Your task to perform on an android device: toggle sleep mode Image 0: 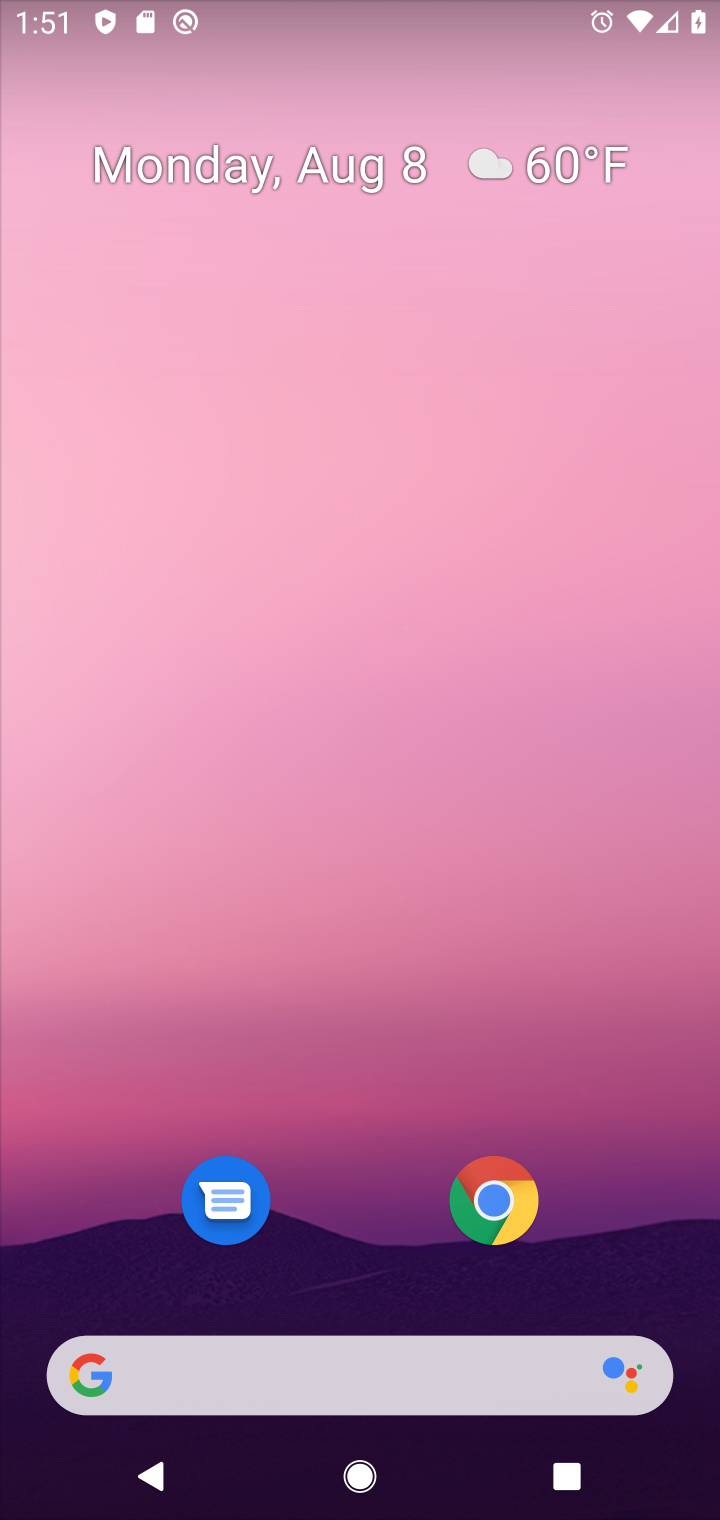
Step 0: press home button
Your task to perform on an android device: toggle sleep mode Image 1: 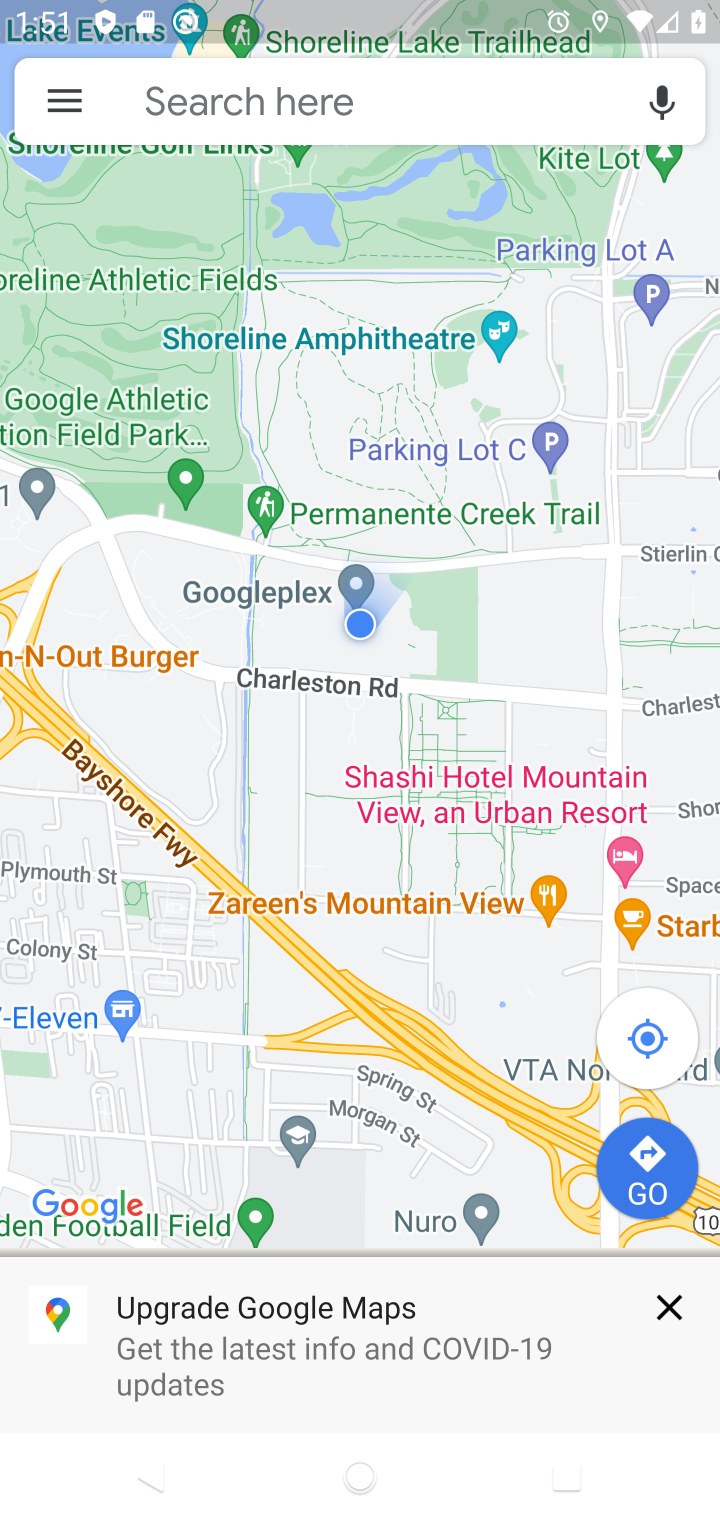
Step 1: click (399, 115)
Your task to perform on an android device: toggle sleep mode Image 2: 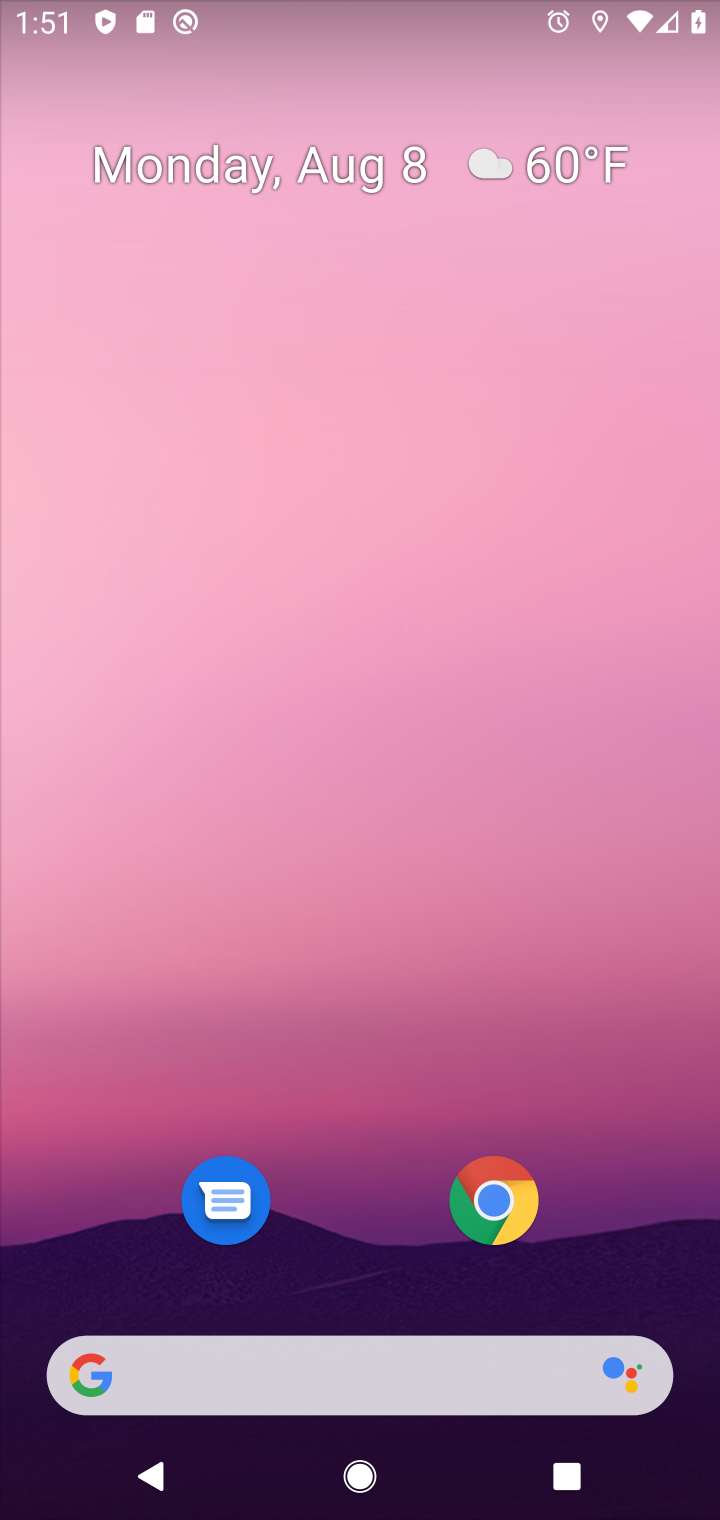
Step 2: drag from (372, 1302) to (388, 109)
Your task to perform on an android device: toggle sleep mode Image 3: 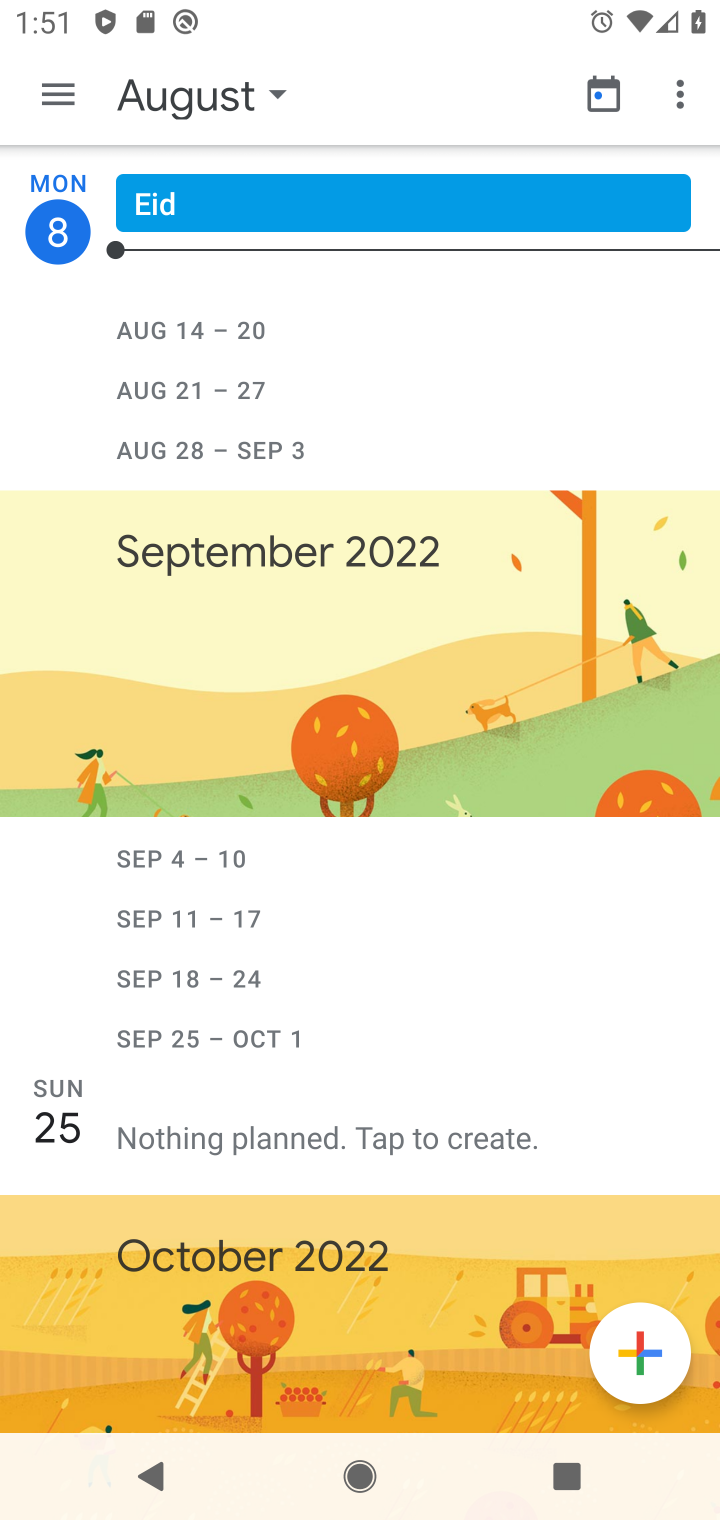
Step 3: press home button
Your task to perform on an android device: toggle sleep mode Image 4: 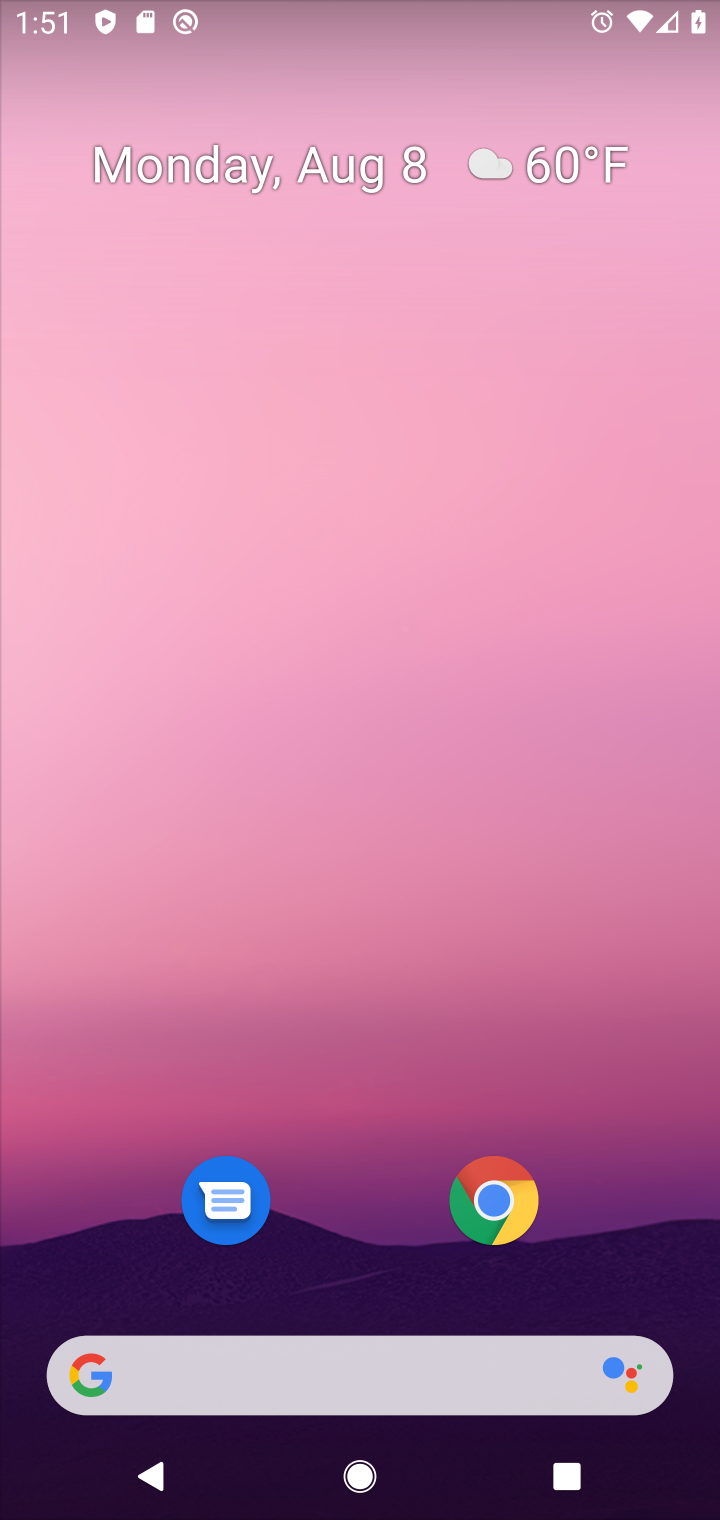
Step 4: drag from (369, 1292) to (354, 210)
Your task to perform on an android device: toggle sleep mode Image 5: 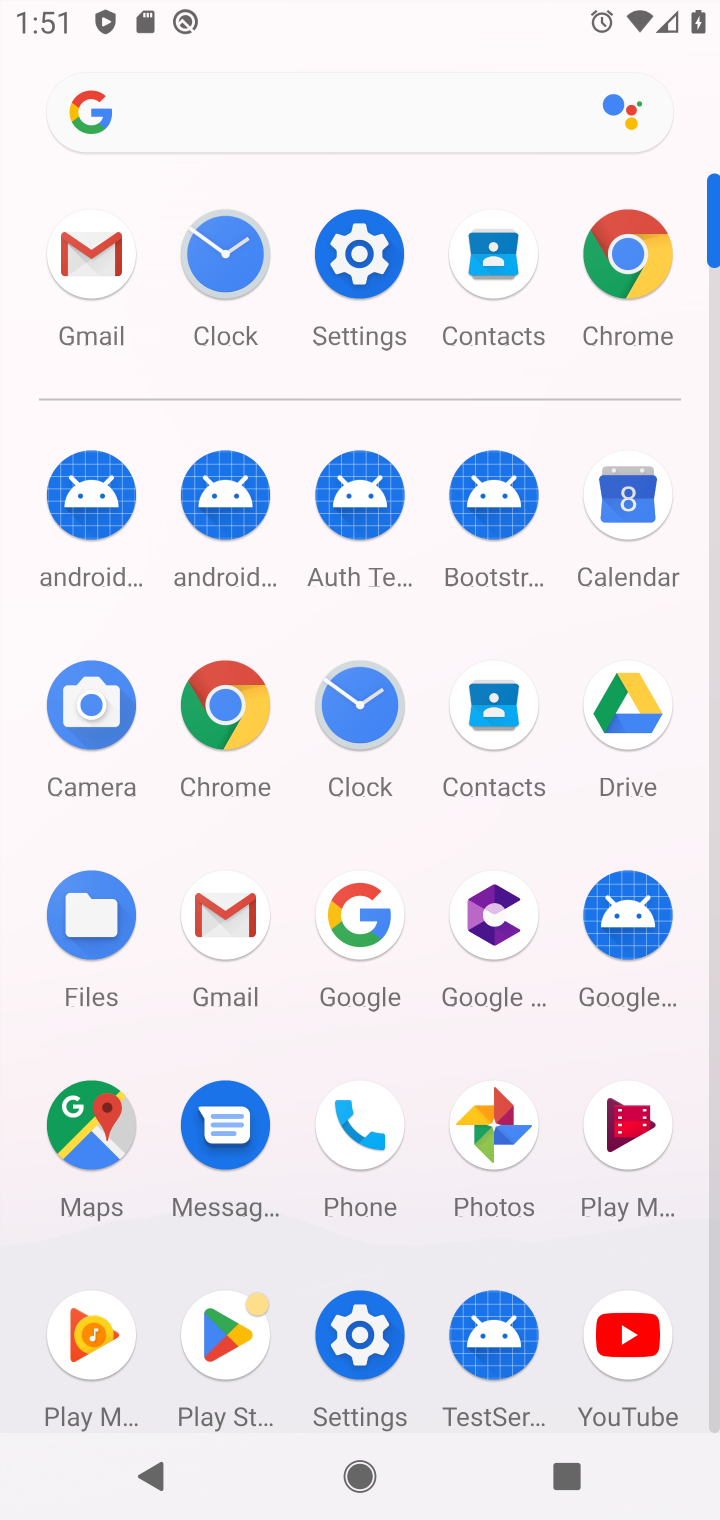
Step 5: click (353, 241)
Your task to perform on an android device: toggle sleep mode Image 6: 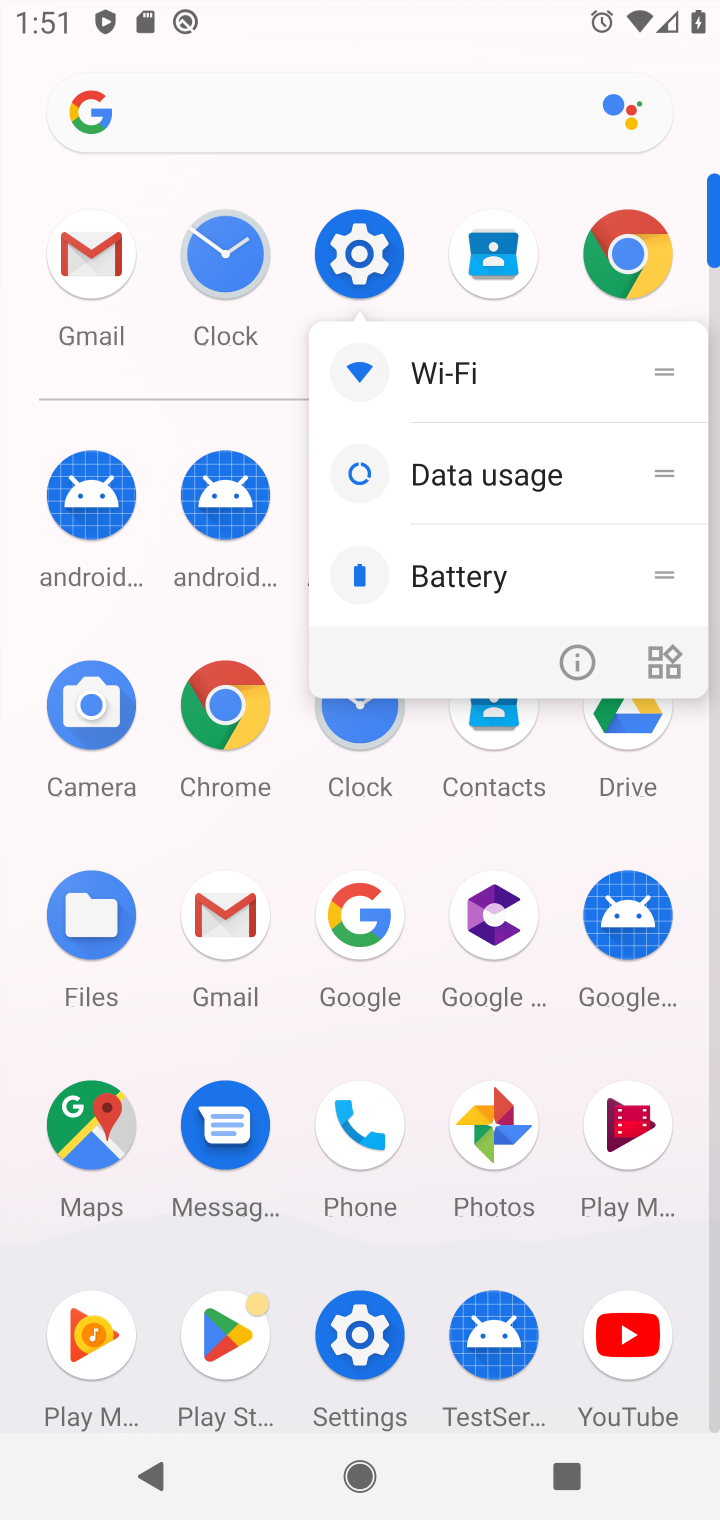
Step 6: click (355, 231)
Your task to perform on an android device: toggle sleep mode Image 7: 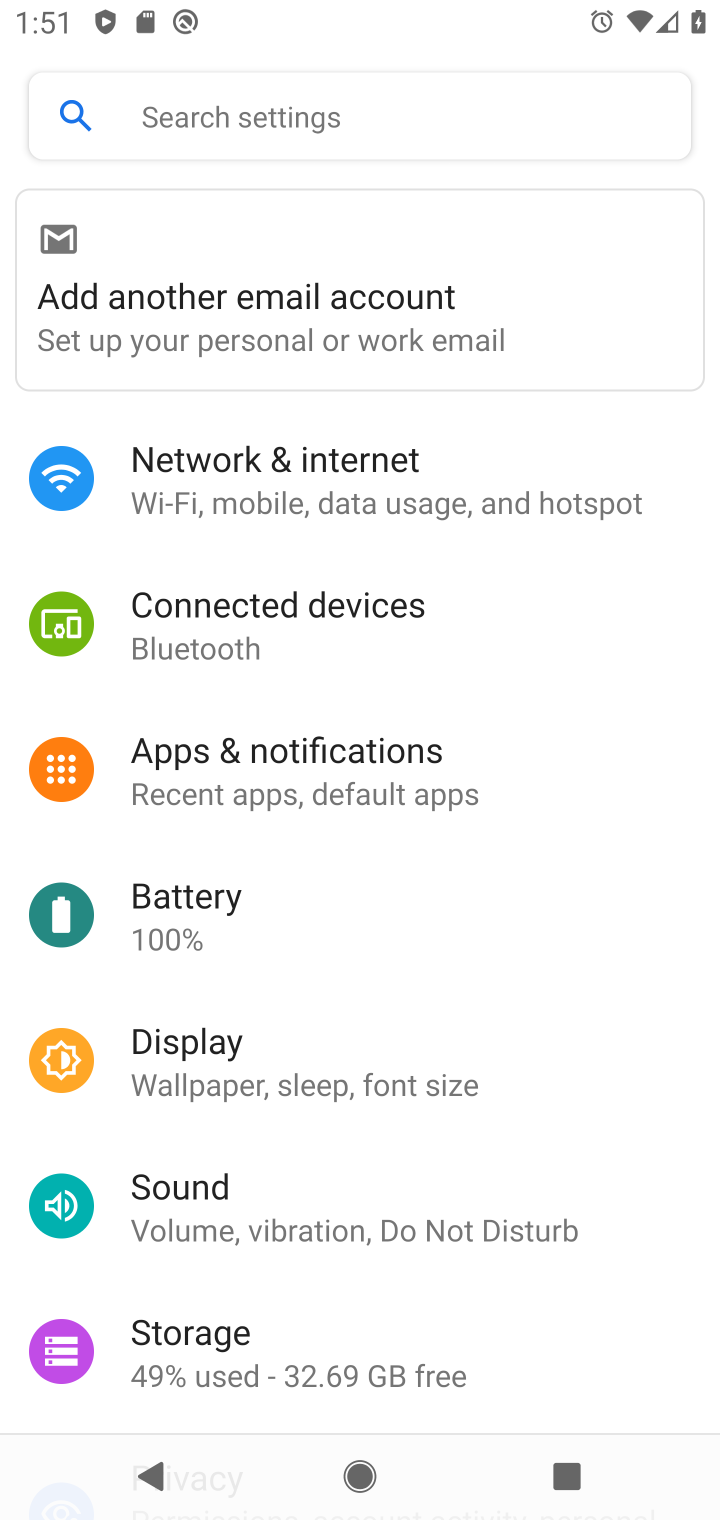
Step 7: click (282, 1055)
Your task to perform on an android device: toggle sleep mode Image 8: 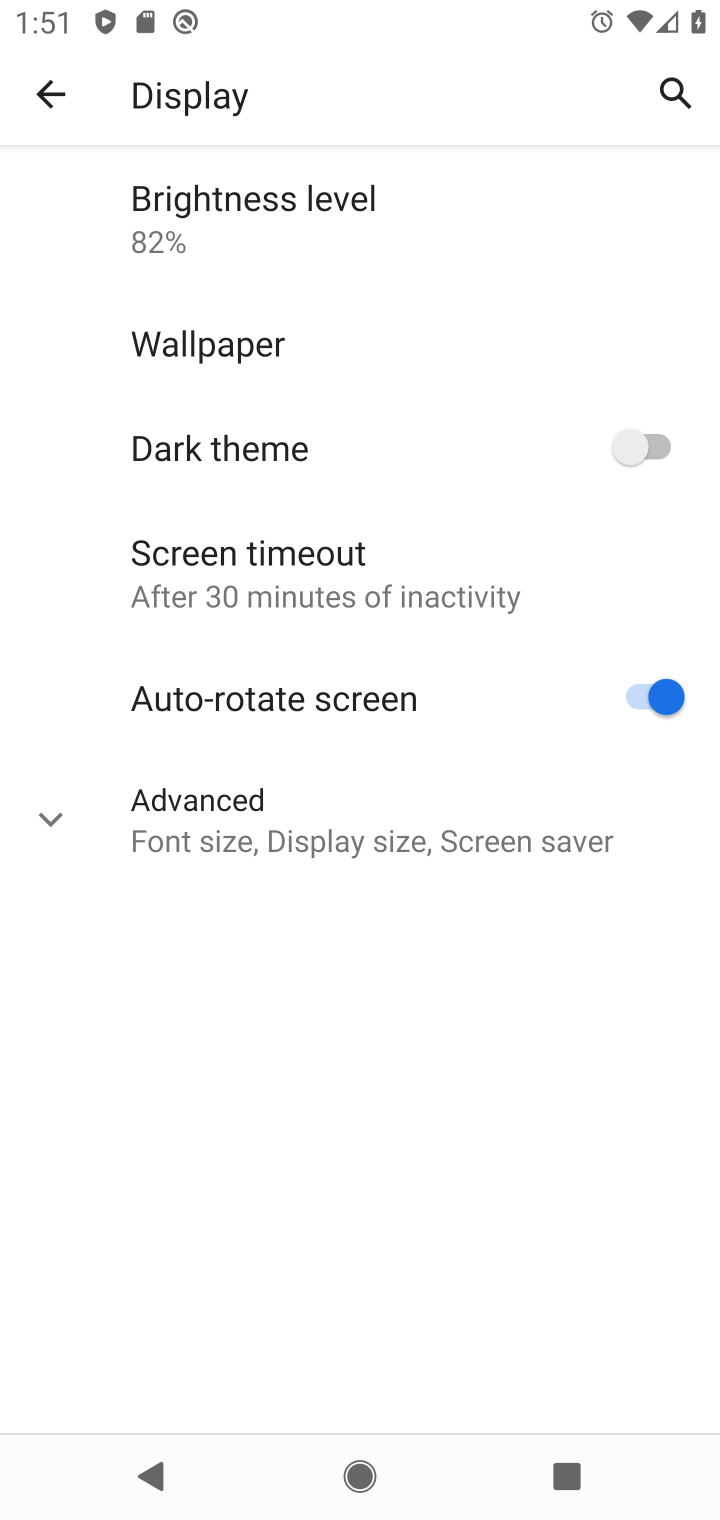
Step 8: click (51, 818)
Your task to perform on an android device: toggle sleep mode Image 9: 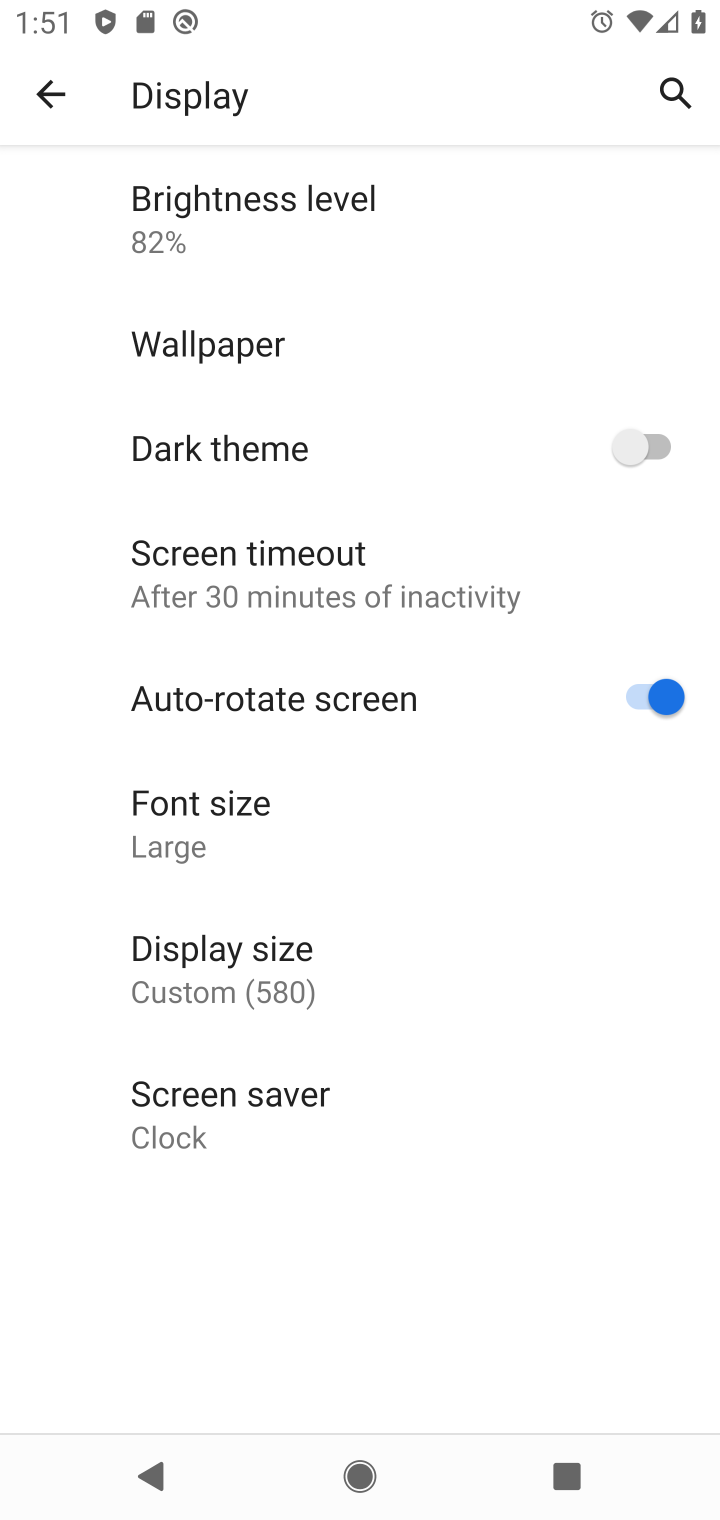
Step 9: task complete